Your task to perform on an android device: open app "Lyft - Rideshare, Bikes, Scooters & Transit" (install if not already installed) and go to login screen Image 0: 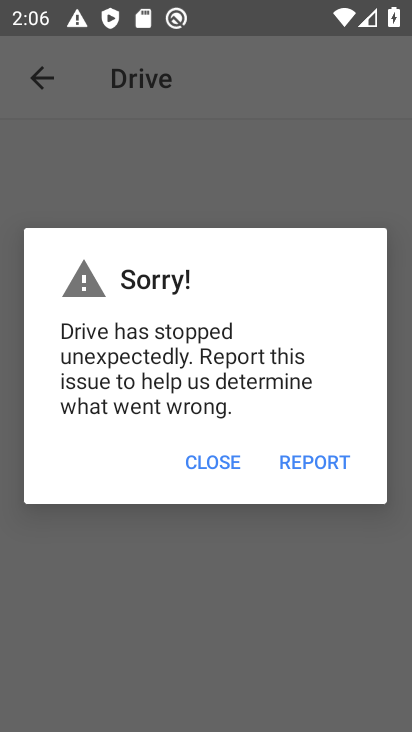
Step 0: press home button
Your task to perform on an android device: open app "Lyft - Rideshare, Bikes, Scooters & Transit" (install if not already installed) and go to login screen Image 1: 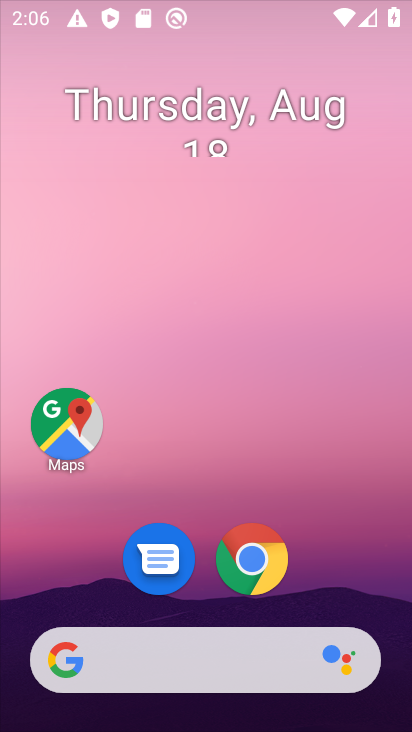
Step 1: drag from (204, 529) to (114, 0)
Your task to perform on an android device: open app "Lyft - Rideshare, Bikes, Scooters & Transit" (install if not already installed) and go to login screen Image 2: 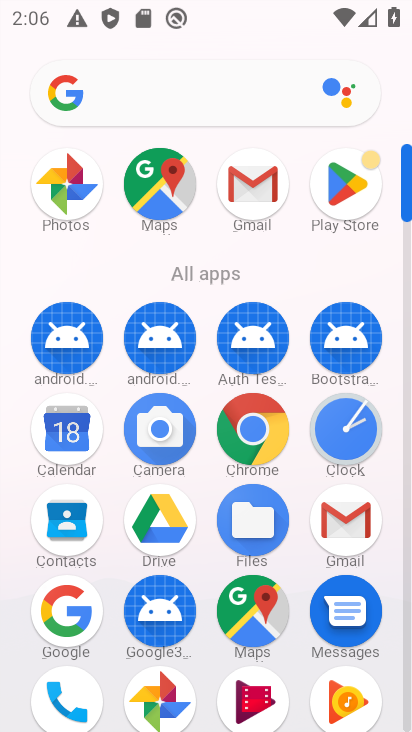
Step 2: click (347, 192)
Your task to perform on an android device: open app "Lyft - Rideshare, Bikes, Scooters & Transit" (install if not already installed) and go to login screen Image 3: 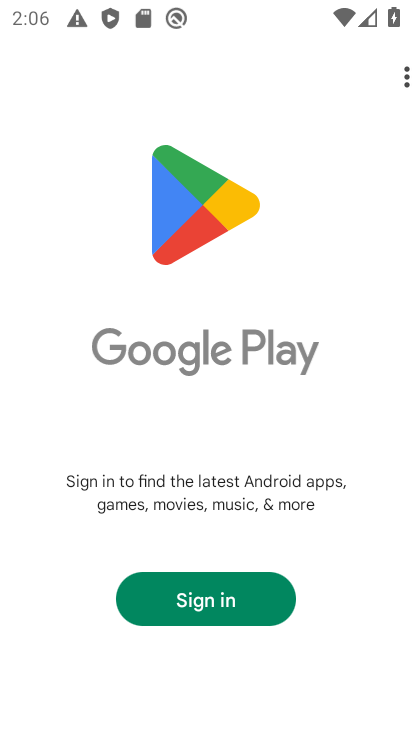
Step 3: click (236, 609)
Your task to perform on an android device: open app "Lyft - Rideshare, Bikes, Scooters & Transit" (install if not already installed) and go to login screen Image 4: 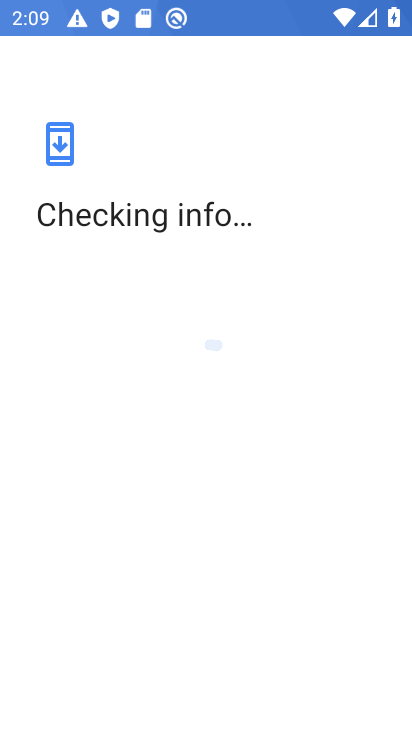
Step 4: task complete